Your task to perform on an android device: Check the settings for the Google Play Movies app Image 0: 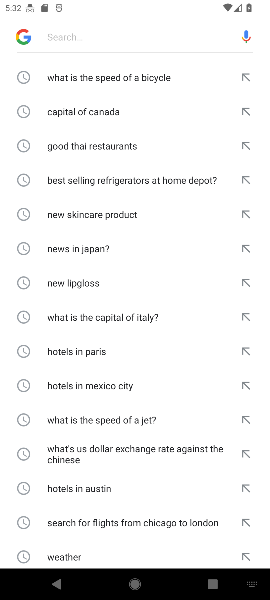
Step 0: press home button
Your task to perform on an android device: Check the settings for the Google Play Movies app Image 1: 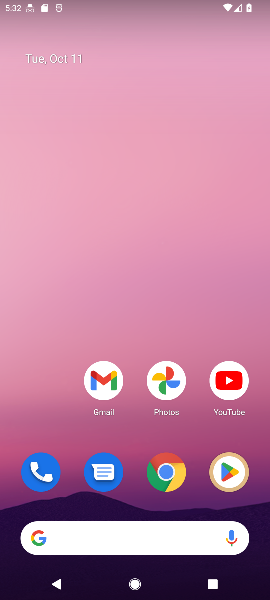
Step 1: drag from (133, 504) to (136, 66)
Your task to perform on an android device: Check the settings for the Google Play Movies app Image 2: 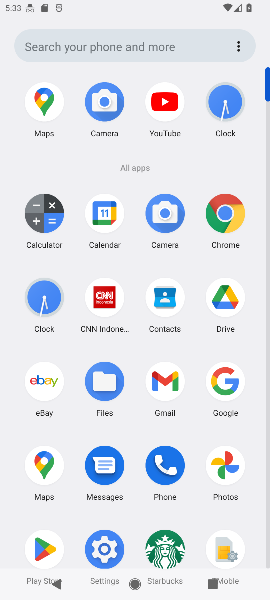
Step 2: click (42, 532)
Your task to perform on an android device: Check the settings for the Google Play Movies app Image 3: 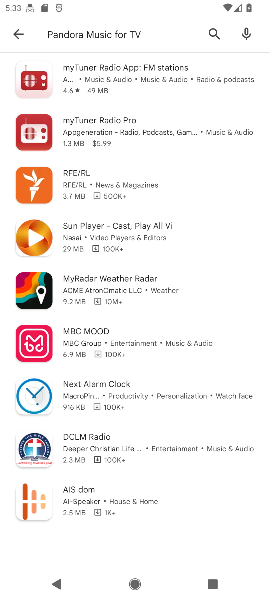
Step 3: click (212, 30)
Your task to perform on an android device: Check the settings for the Google Play Movies app Image 4: 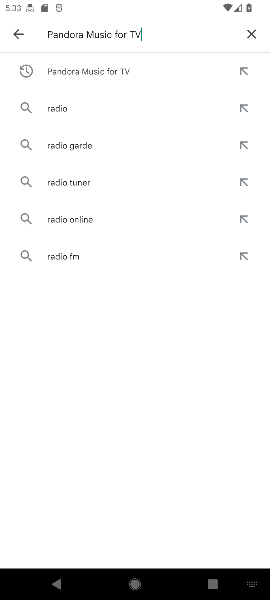
Step 4: click (259, 31)
Your task to perform on an android device: Check the settings for the Google Play Movies app Image 5: 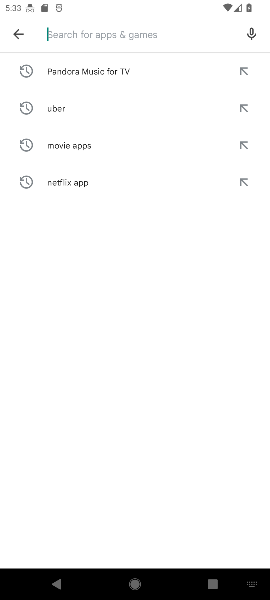
Step 5: type " Google Play Movies app"
Your task to perform on an android device: Check the settings for the Google Play Movies app Image 6: 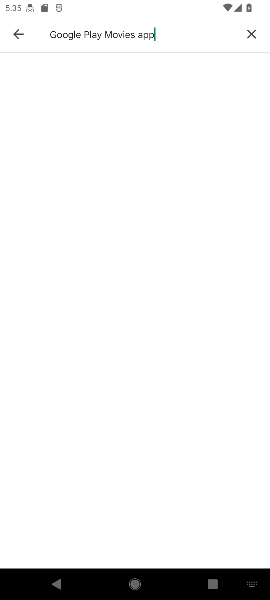
Step 6: task complete